Your task to perform on an android device: delete the emails in spam in the gmail app Image 0: 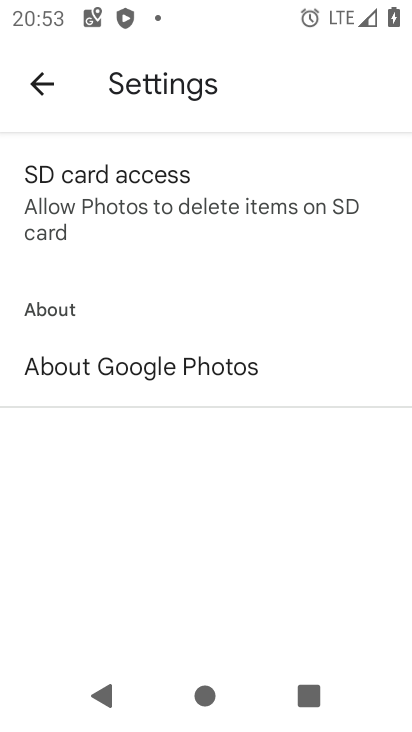
Step 0: press home button
Your task to perform on an android device: delete the emails in spam in the gmail app Image 1: 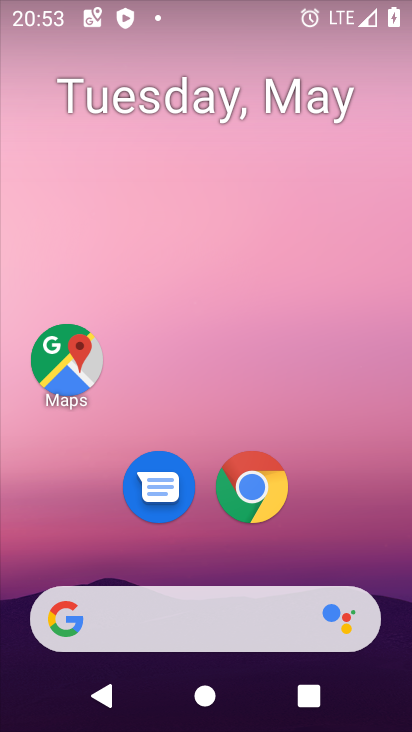
Step 1: drag from (337, 527) to (248, 21)
Your task to perform on an android device: delete the emails in spam in the gmail app Image 2: 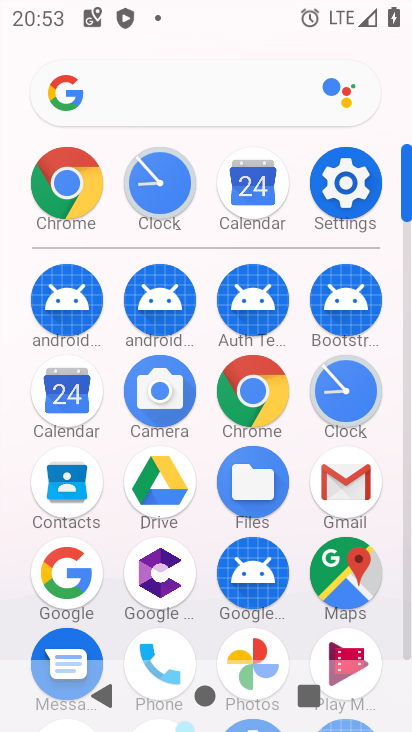
Step 2: click (349, 481)
Your task to perform on an android device: delete the emails in spam in the gmail app Image 3: 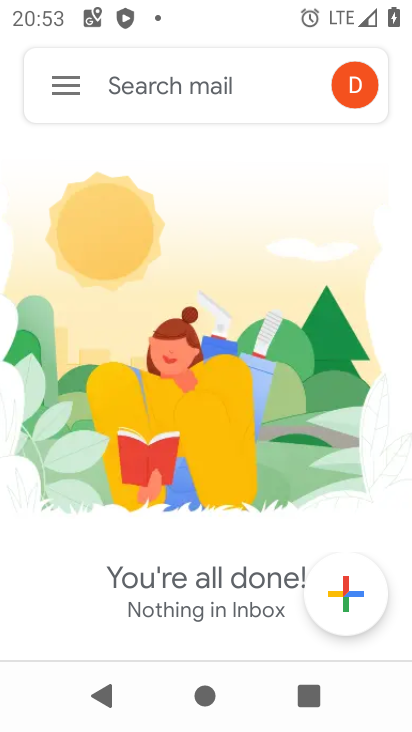
Step 3: click (65, 89)
Your task to perform on an android device: delete the emails in spam in the gmail app Image 4: 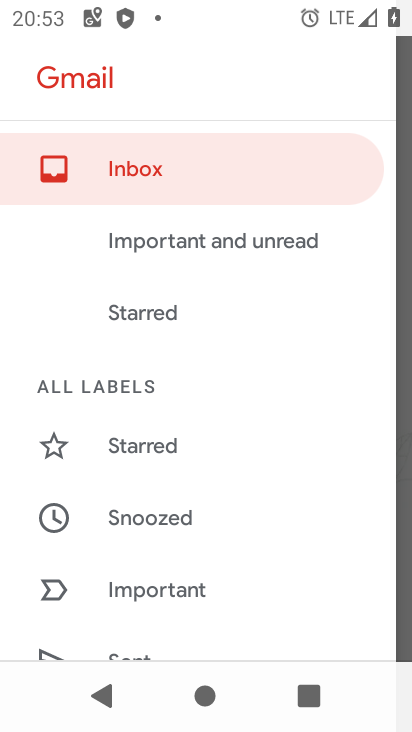
Step 4: drag from (224, 546) to (165, 201)
Your task to perform on an android device: delete the emails in spam in the gmail app Image 5: 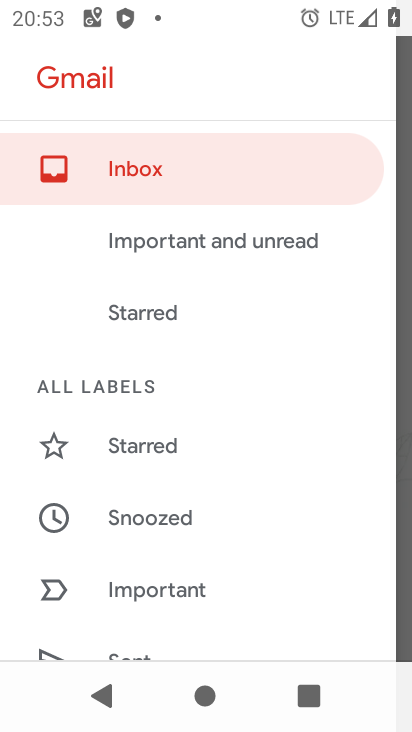
Step 5: drag from (225, 561) to (210, 233)
Your task to perform on an android device: delete the emails in spam in the gmail app Image 6: 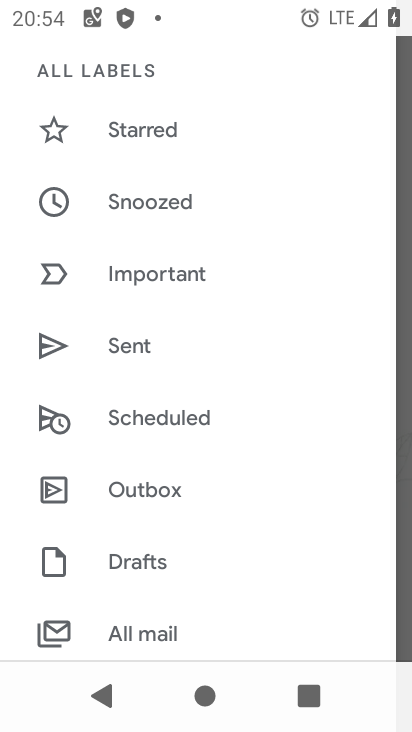
Step 6: drag from (183, 543) to (165, 134)
Your task to perform on an android device: delete the emails in spam in the gmail app Image 7: 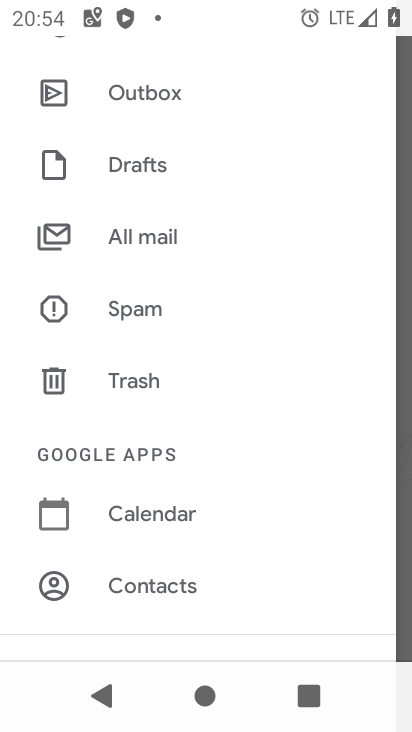
Step 7: click (128, 306)
Your task to perform on an android device: delete the emails in spam in the gmail app Image 8: 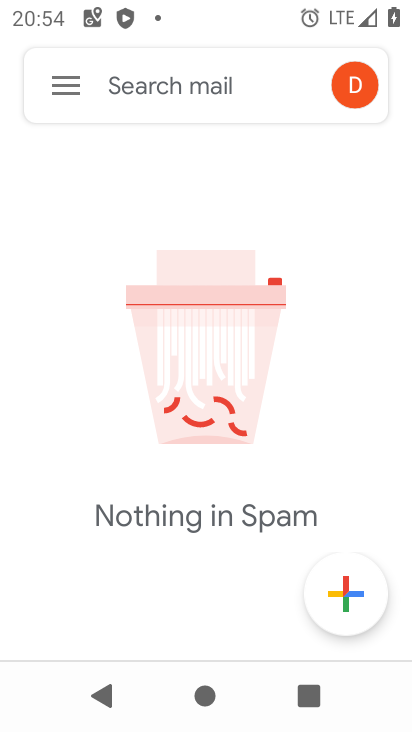
Step 8: task complete